Your task to perform on an android device: Check the weather Image 0: 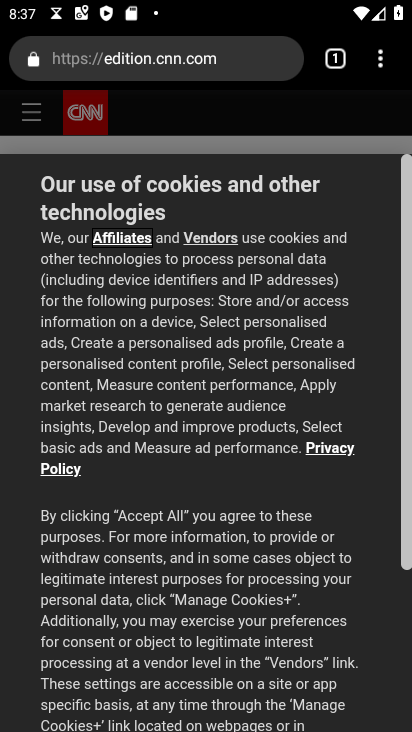
Step 0: click (387, 59)
Your task to perform on an android device: Check the weather Image 1: 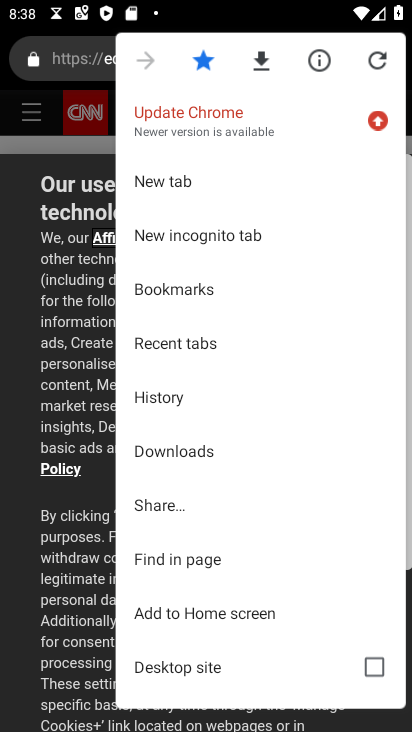
Step 1: drag from (184, 630) to (245, 315)
Your task to perform on an android device: Check the weather Image 2: 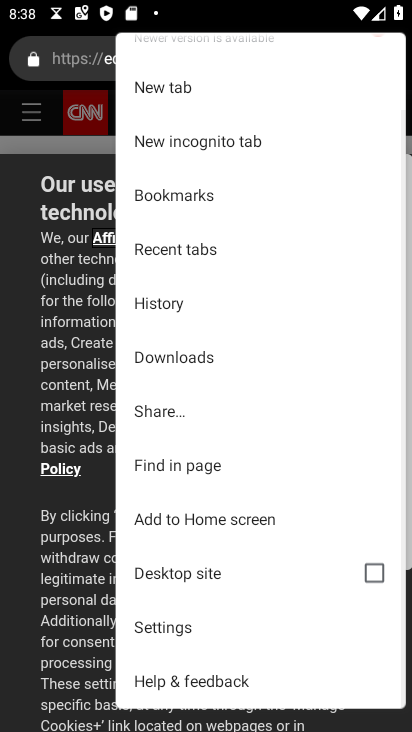
Step 2: click (184, 627)
Your task to perform on an android device: Check the weather Image 3: 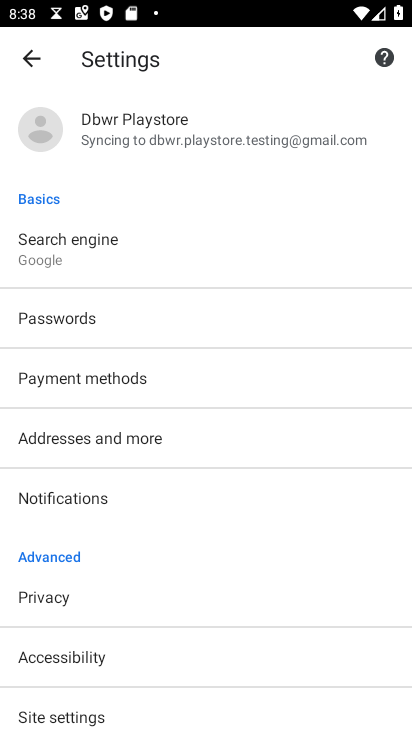
Step 3: task complete